Your task to perform on an android device: Open Wikipedia Image 0: 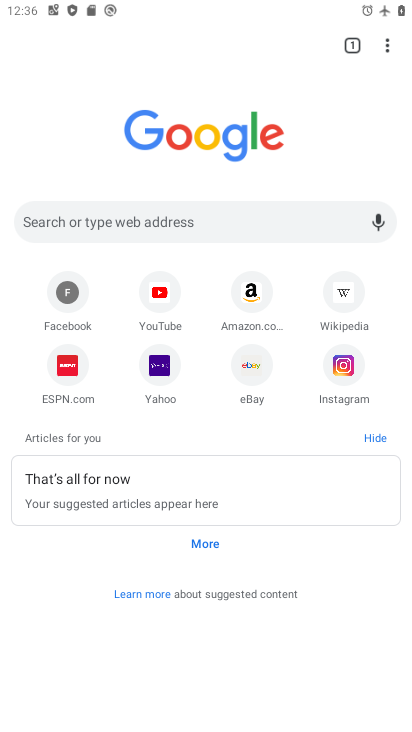
Step 0: press back button
Your task to perform on an android device: Open Wikipedia Image 1: 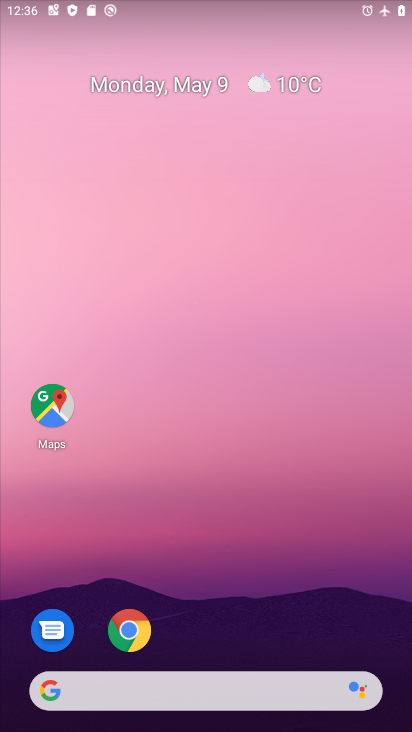
Step 1: click (135, 637)
Your task to perform on an android device: Open Wikipedia Image 2: 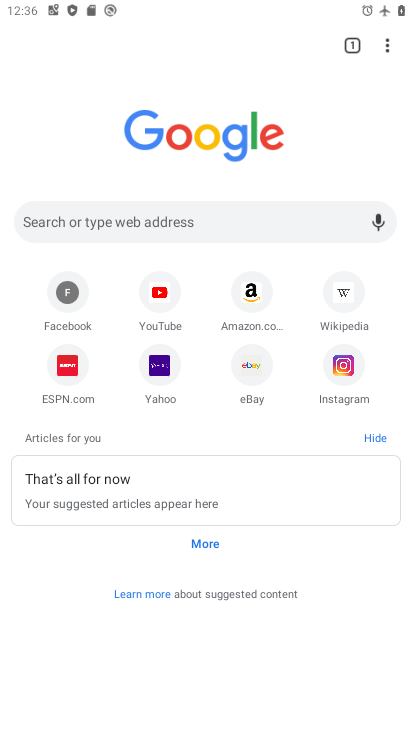
Step 2: click (156, 224)
Your task to perform on an android device: Open Wikipedia Image 3: 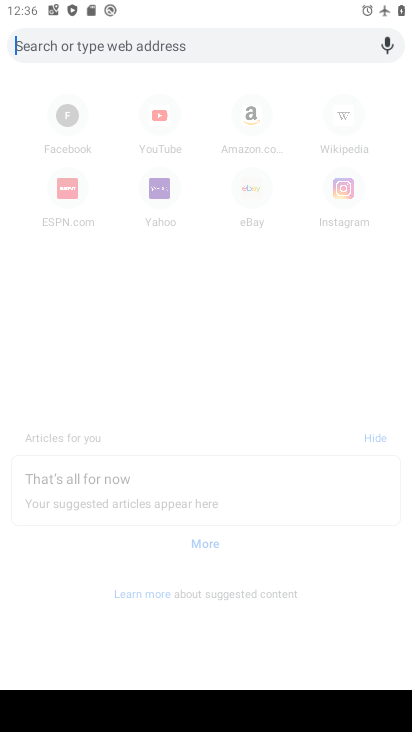
Step 3: type "wikipedia"
Your task to perform on an android device: Open Wikipedia Image 4: 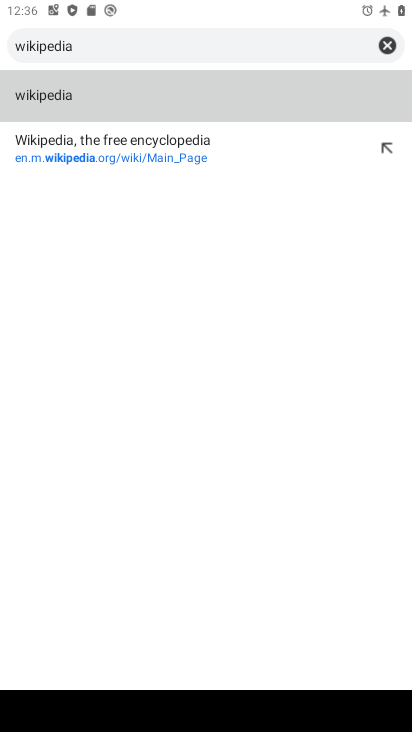
Step 4: click (164, 85)
Your task to perform on an android device: Open Wikipedia Image 5: 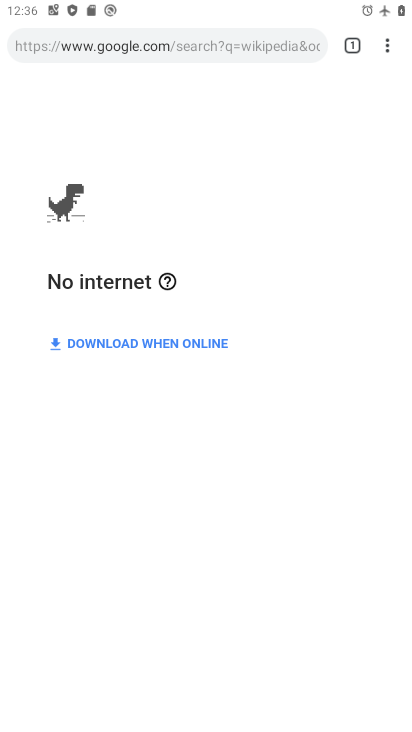
Step 5: task complete